Your task to perform on an android device: Open Yahoo.com Image 0: 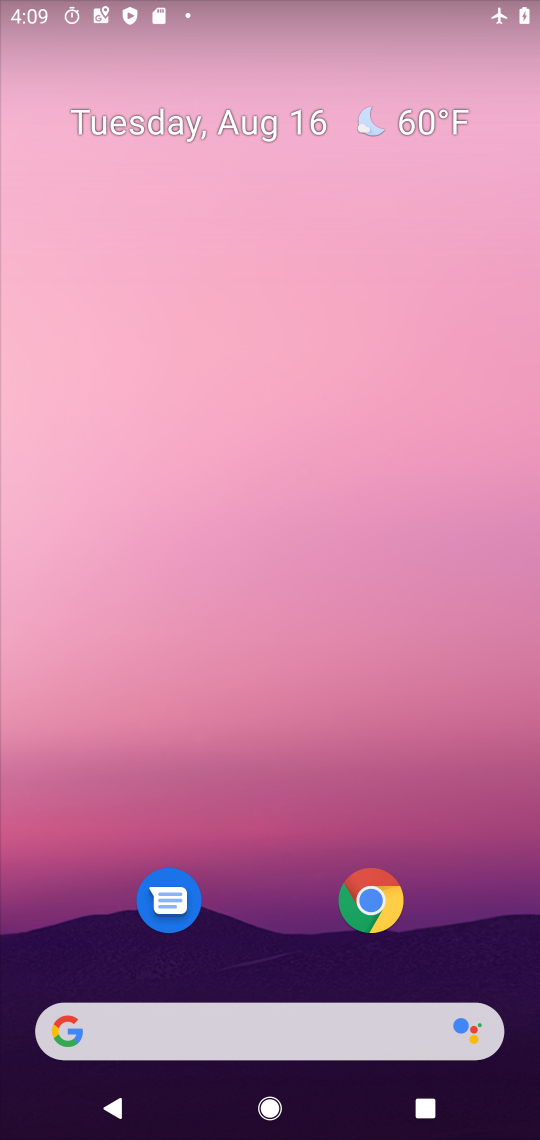
Step 0: click (373, 909)
Your task to perform on an android device: Open Yahoo.com Image 1: 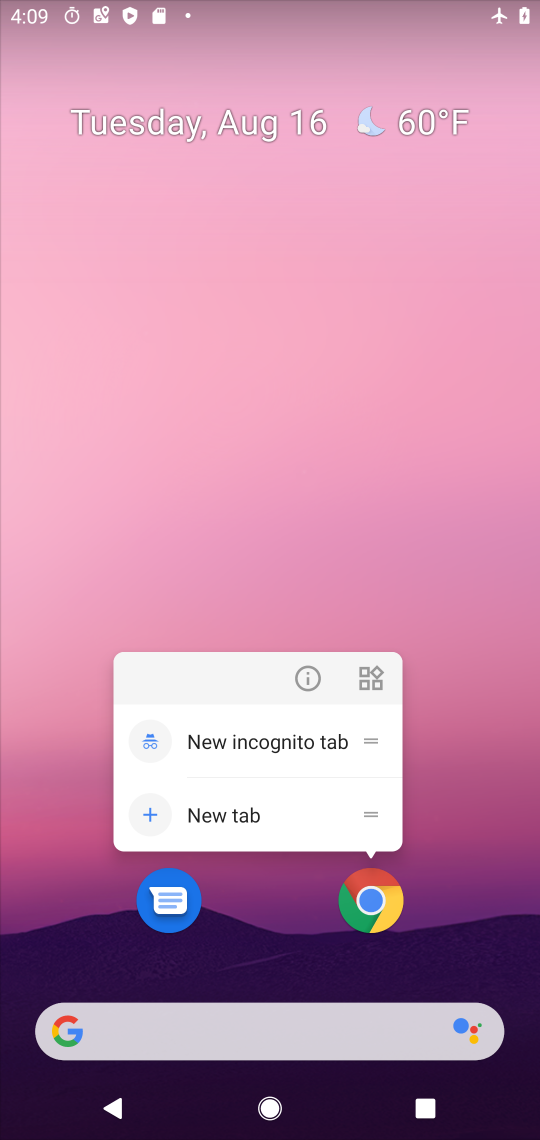
Step 1: click (362, 916)
Your task to perform on an android device: Open Yahoo.com Image 2: 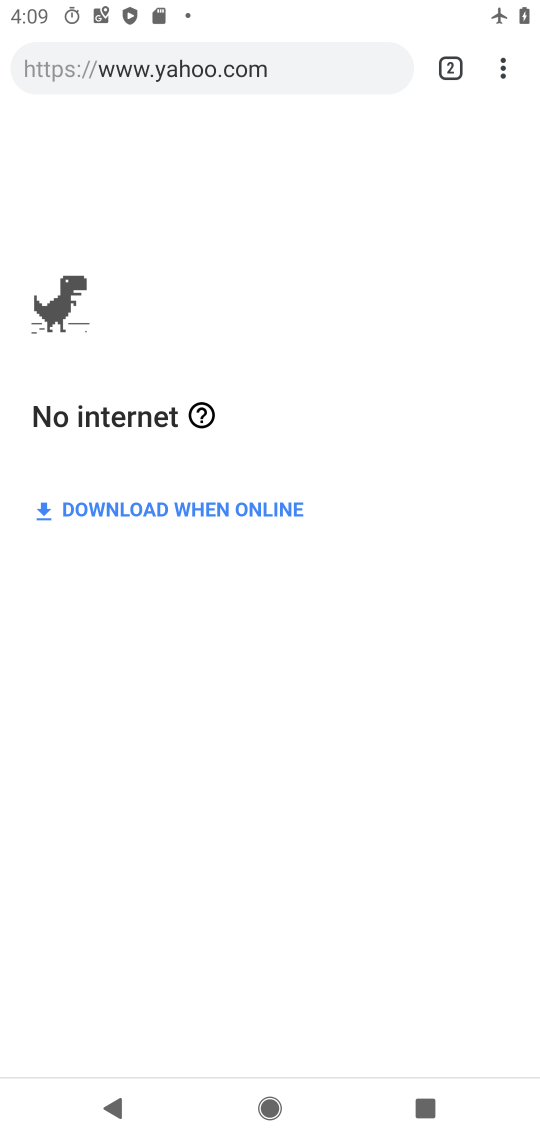
Step 2: task complete